Your task to perform on an android device: set the timer Image 0: 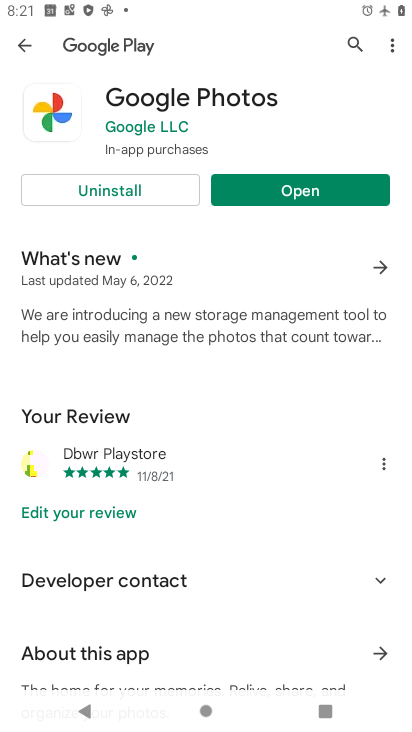
Step 0: press home button
Your task to perform on an android device: set the timer Image 1: 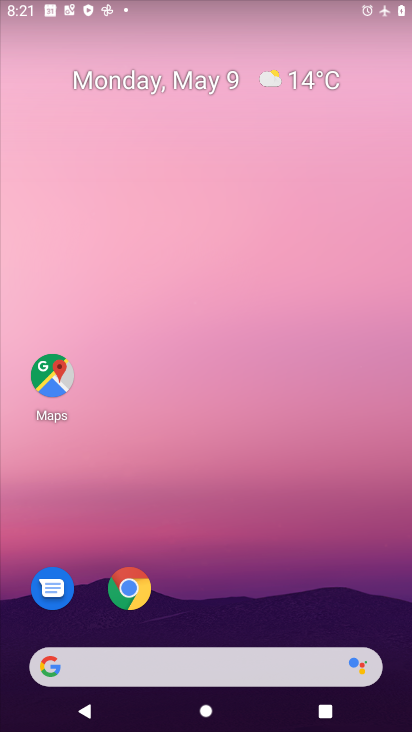
Step 1: drag from (335, 564) to (263, 44)
Your task to perform on an android device: set the timer Image 2: 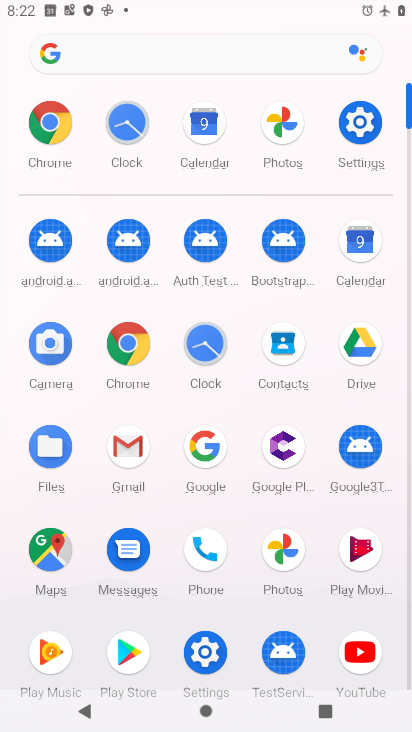
Step 2: click (219, 332)
Your task to perform on an android device: set the timer Image 3: 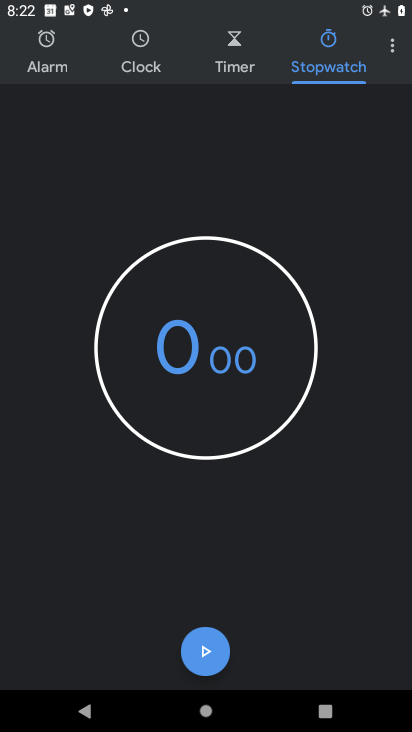
Step 3: click (393, 40)
Your task to perform on an android device: set the timer Image 4: 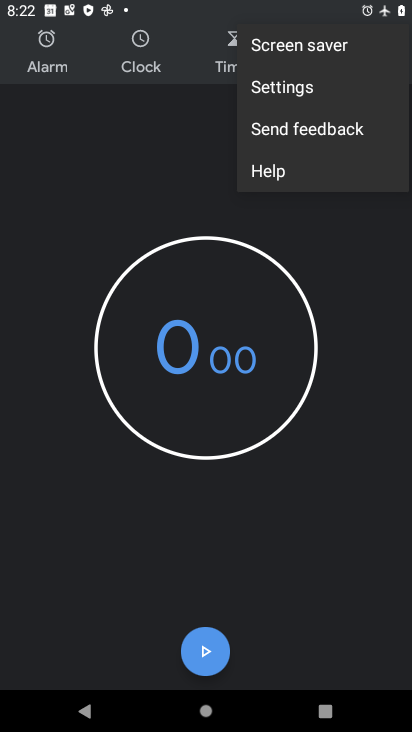
Step 4: click (308, 97)
Your task to perform on an android device: set the timer Image 5: 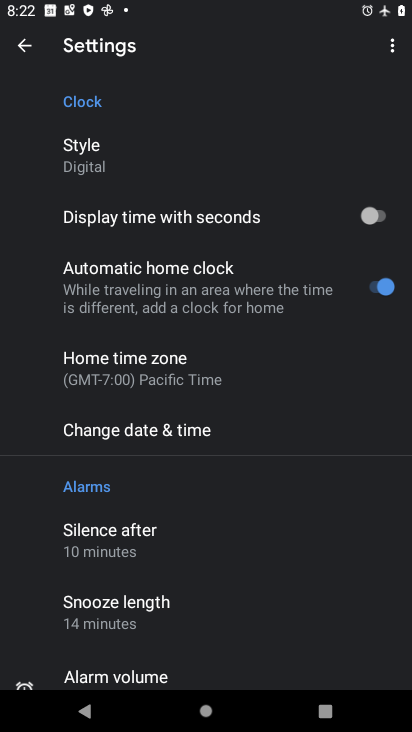
Step 5: click (122, 382)
Your task to perform on an android device: set the timer Image 6: 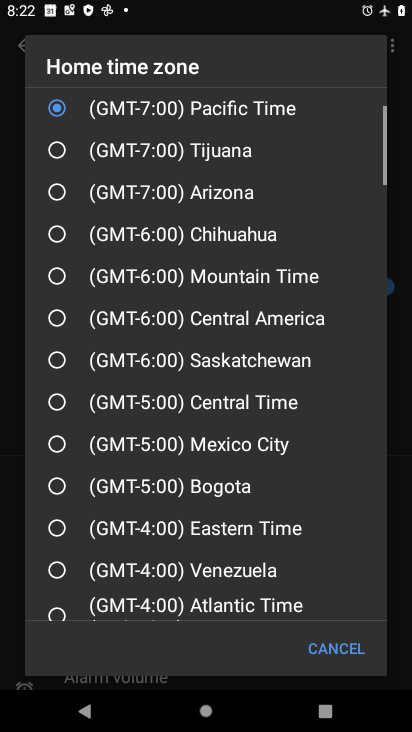
Step 6: click (147, 319)
Your task to perform on an android device: set the timer Image 7: 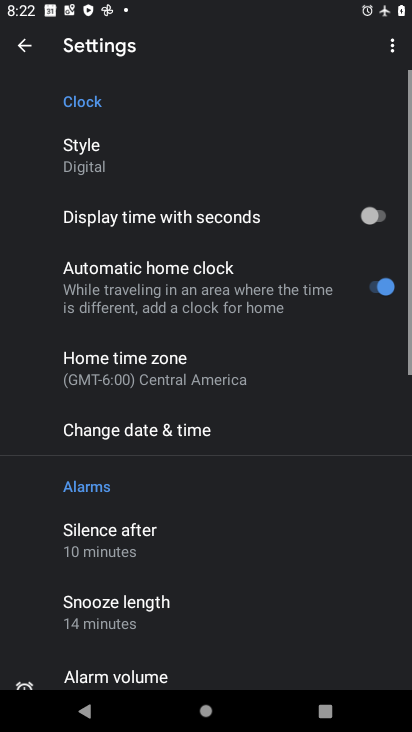
Step 7: task complete